Your task to perform on an android device: change alarm snooze length Image 0: 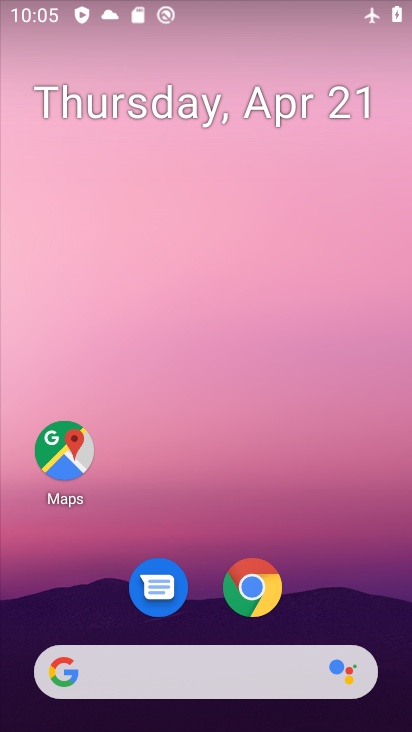
Step 0: drag from (348, 590) to (391, 78)
Your task to perform on an android device: change alarm snooze length Image 1: 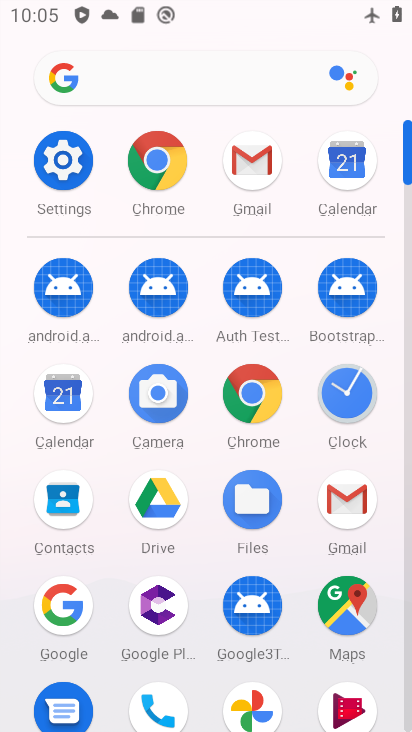
Step 1: click (355, 399)
Your task to perform on an android device: change alarm snooze length Image 2: 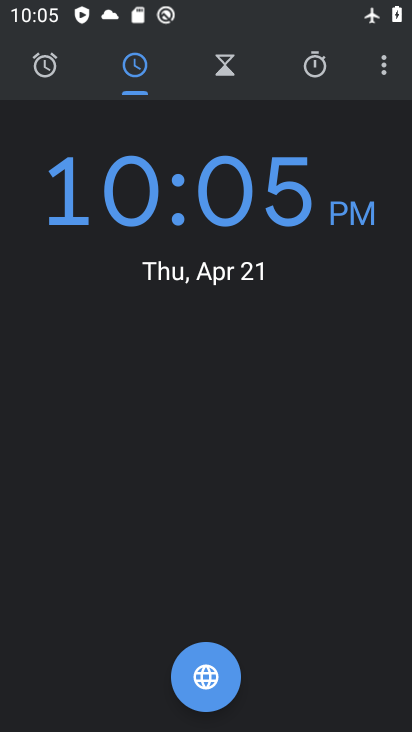
Step 2: click (383, 69)
Your task to perform on an android device: change alarm snooze length Image 3: 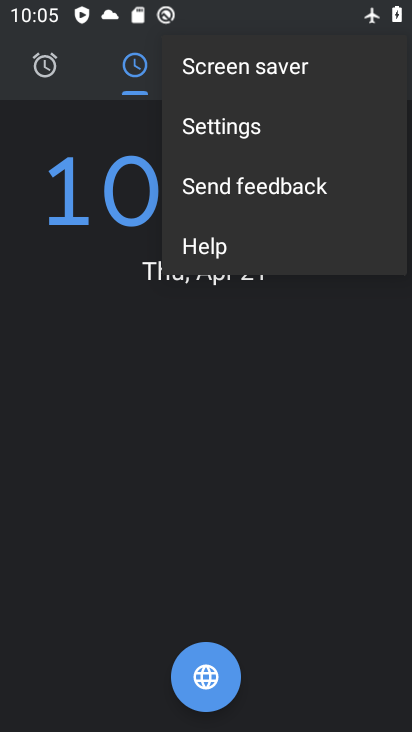
Step 3: click (251, 134)
Your task to perform on an android device: change alarm snooze length Image 4: 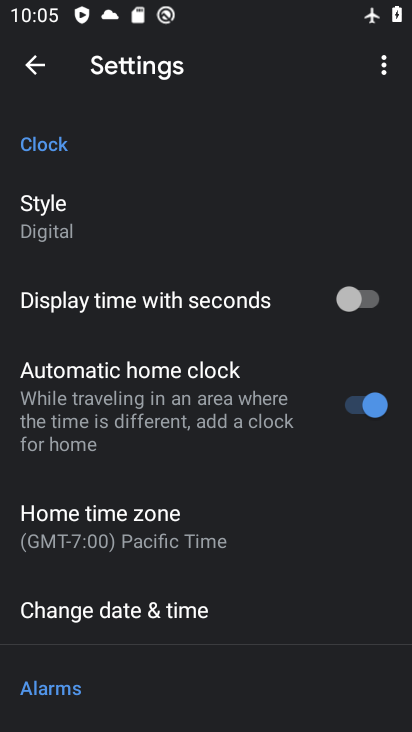
Step 4: drag from (284, 572) to (315, 352)
Your task to perform on an android device: change alarm snooze length Image 5: 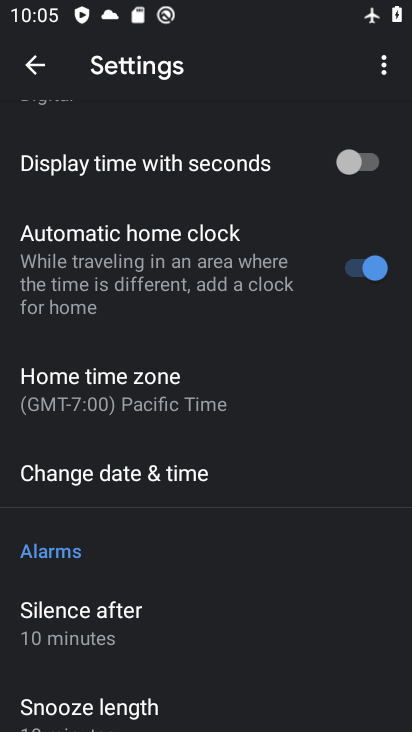
Step 5: drag from (291, 581) to (309, 392)
Your task to perform on an android device: change alarm snooze length Image 6: 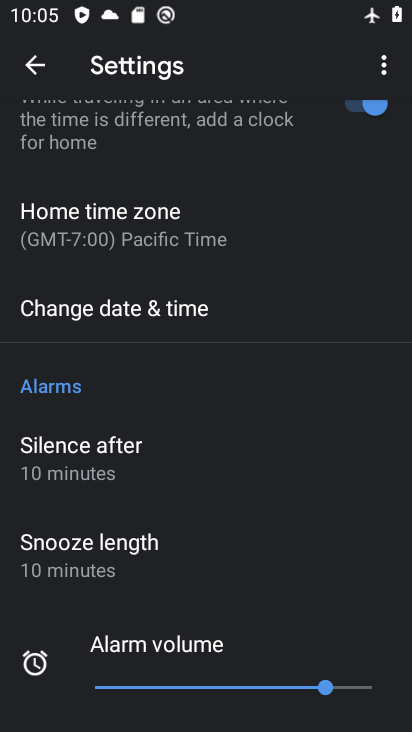
Step 6: drag from (270, 580) to (292, 322)
Your task to perform on an android device: change alarm snooze length Image 7: 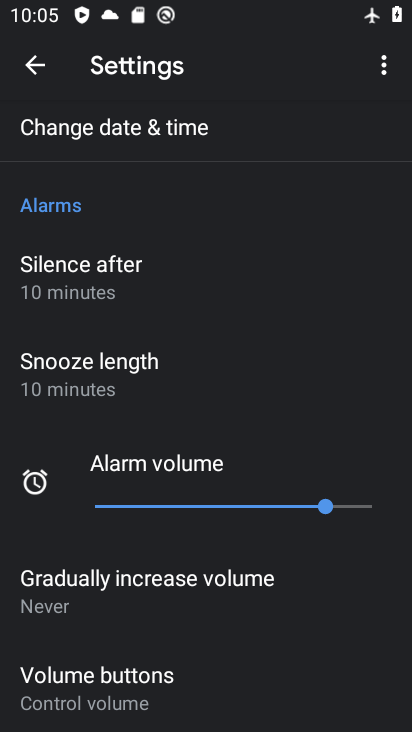
Step 7: drag from (320, 590) to (321, 393)
Your task to perform on an android device: change alarm snooze length Image 8: 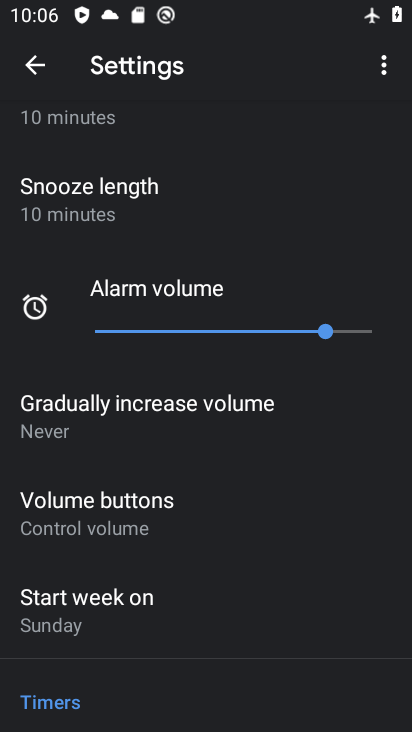
Step 8: drag from (316, 578) to (325, 406)
Your task to perform on an android device: change alarm snooze length Image 9: 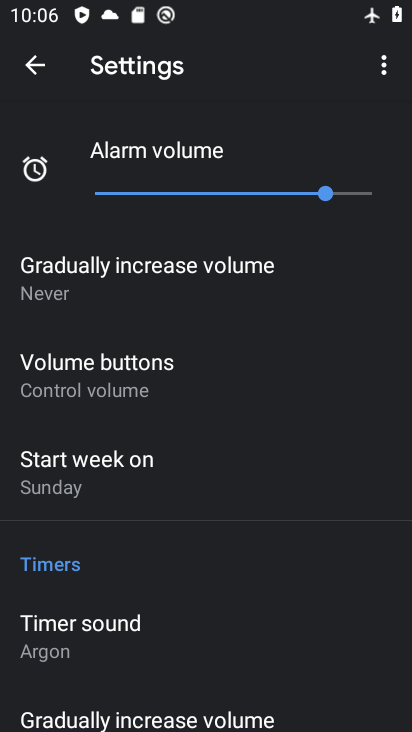
Step 9: drag from (343, 554) to (363, 369)
Your task to perform on an android device: change alarm snooze length Image 10: 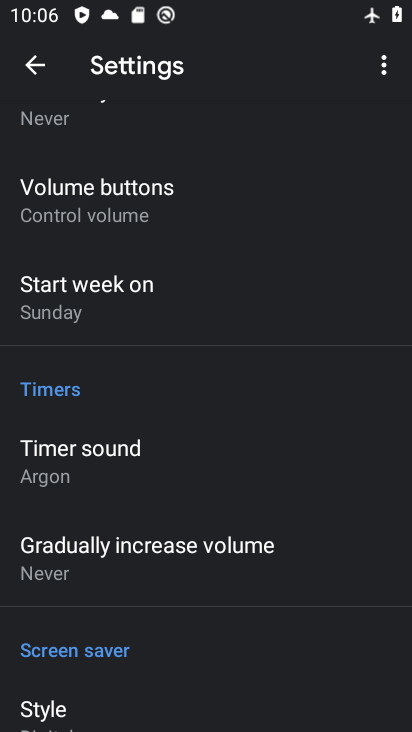
Step 10: drag from (305, 627) to (310, 318)
Your task to perform on an android device: change alarm snooze length Image 11: 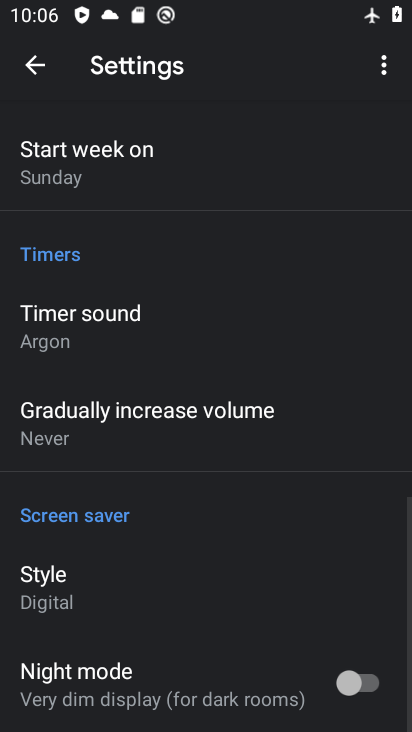
Step 11: drag from (304, 331) to (294, 503)
Your task to perform on an android device: change alarm snooze length Image 12: 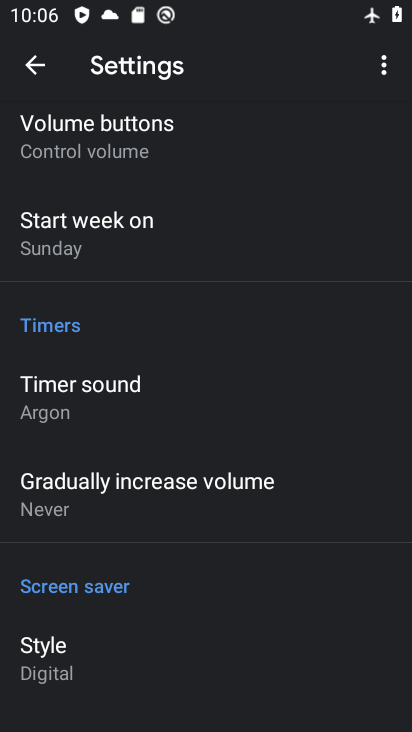
Step 12: drag from (340, 314) to (337, 491)
Your task to perform on an android device: change alarm snooze length Image 13: 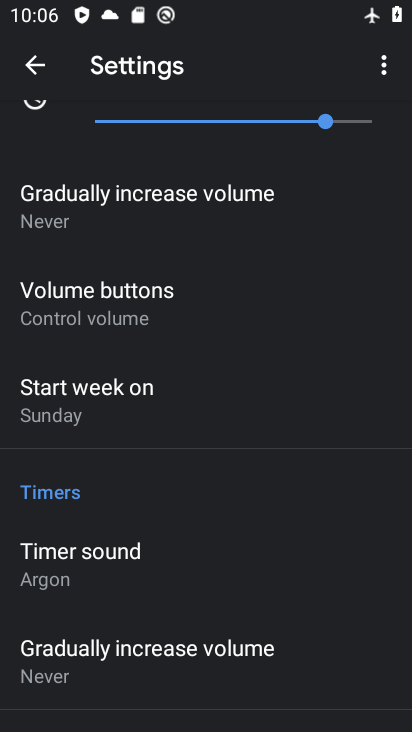
Step 13: drag from (343, 279) to (330, 469)
Your task to perform on an android device: change alarm snooze length Image 14: 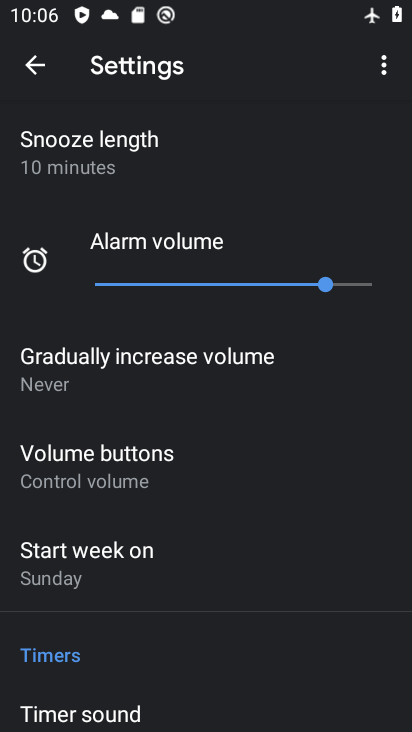
Step 14: drag from (351, 223) to (341, 449)
Your task to perform on an android device: change alarm snooze length Image 15: 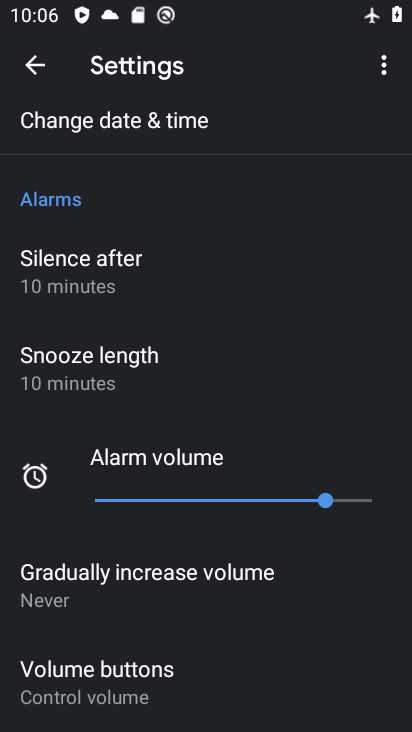
Step 15: click (131, 373)
Your task to perform on an android device: change alarm snooze length Image 16: 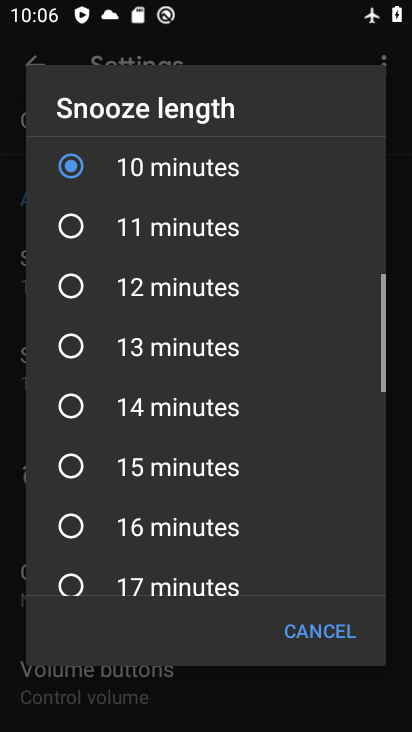
Step 16: click (228, 351)
Your task to perform on an android device: change alarm snooze length Image 17: 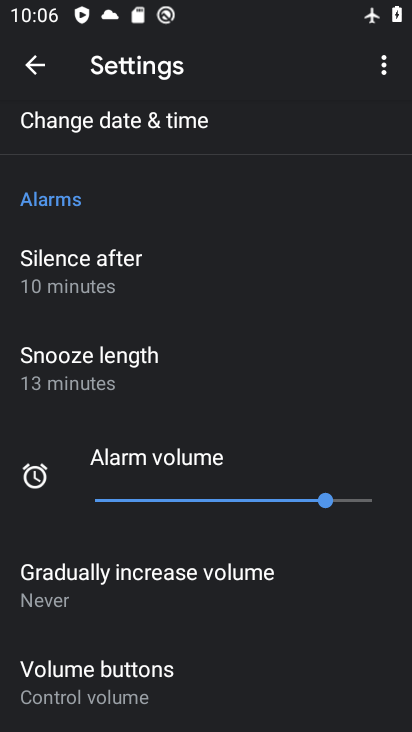
Step 17: task complete